Your task to perform on an android device: Go to Google maps Image 0: 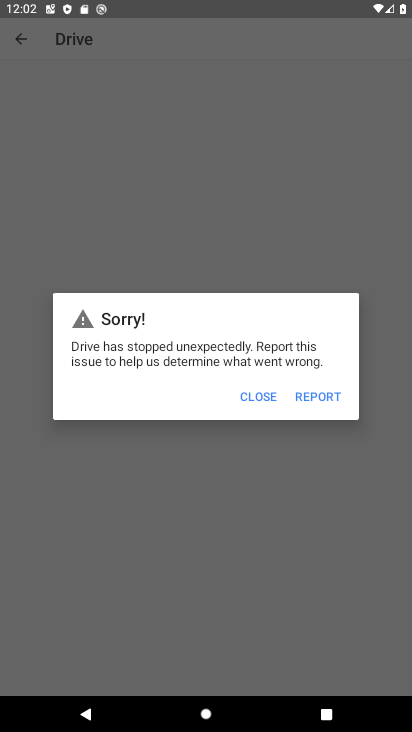
Step 0: press home button
Your task to perform on an android device: Go to Google maps Image 1: 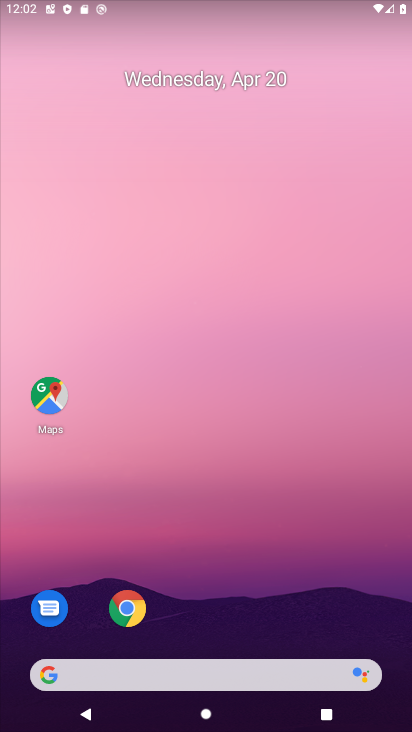
Step 1: click (49, 396)
Your task to perform on an android device: Go to Google maps Image 2: 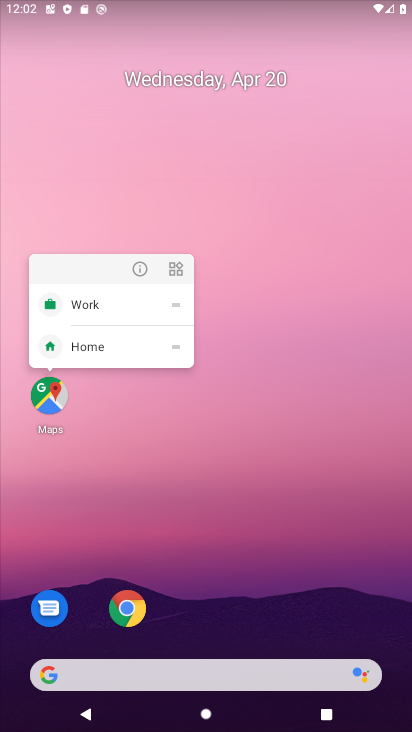
Step 2: click (49, 396)
Your task to perform on an android device: Go to Google maps Image 3: 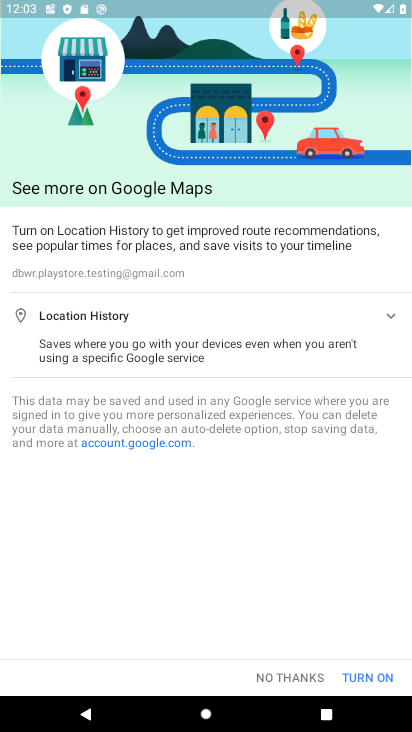
Step 3: task complete